Your task to perform on an android device: check battery use Image 0: 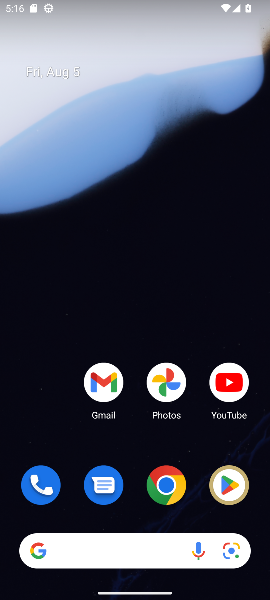
Step 0: drag from (249, 443) to (220, 191)
Your task to perform on an android device: check battery use Image 1: 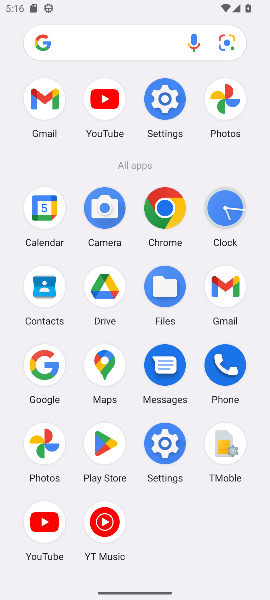
Step 1: click (164, 448)
Your task to perform on an android device: check battery use Image 2: 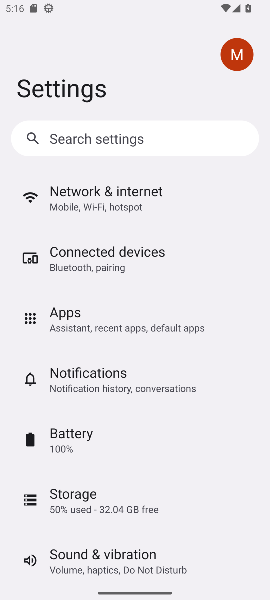
Step 2: click (117, 433)
Your task to perform on an android device: check battery use Image 3: 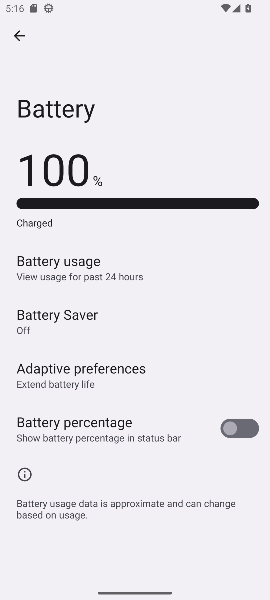
Step 3: click (84, 272)
Your task to perform on an android device: check battery use Image 4: 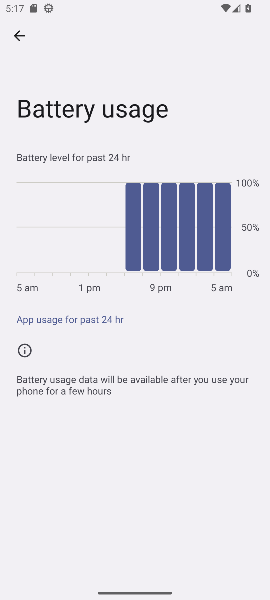
Step 4: task complete